Your task to perform on an android device: Open eBay Image 0: 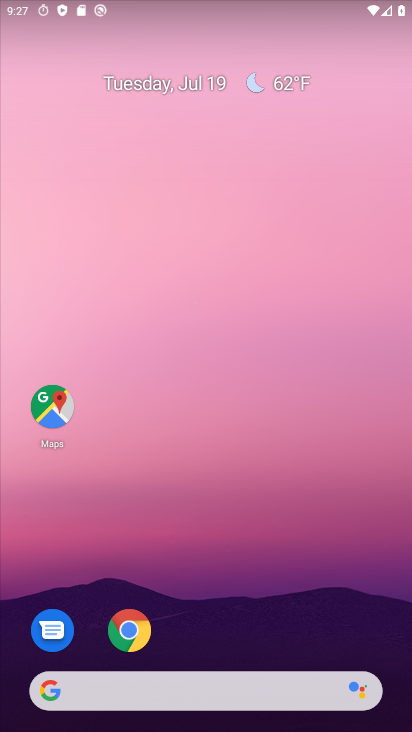
Step 0: click (120, 631)
Your task to perform on an android device: Open eBay Image 1: 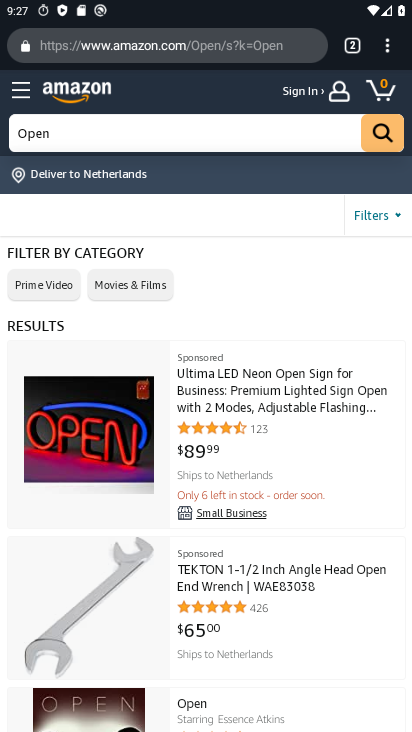
Step 1: click (351, 46)
Your task to perform on an android device: Open eBay Image 2: 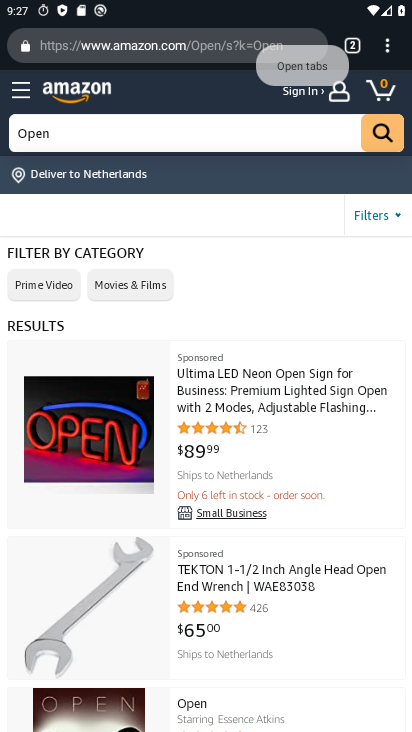
Step 2: click (351, 44)
Your task to perform on an android device: Open eBay Image 3: 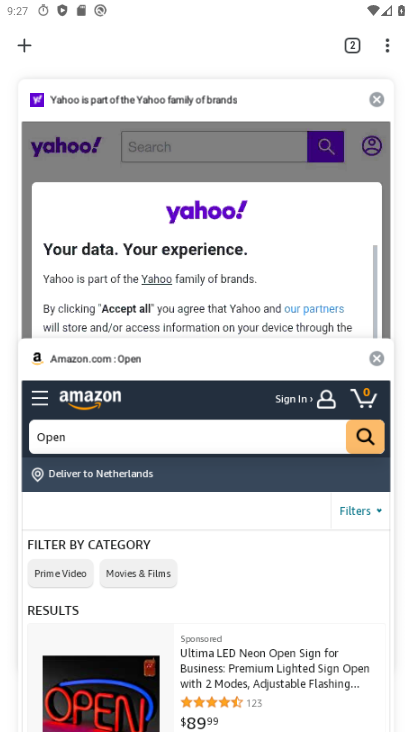
Step 3: click (376, 97)
Your task to perform on an android device: Open eBay Image 4: 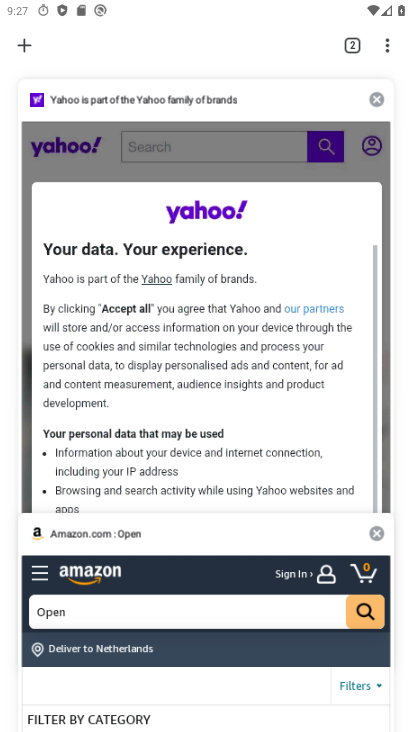
Step 4: click (376, 97)
Your task to perform on an android device: Open eBay Image 5: 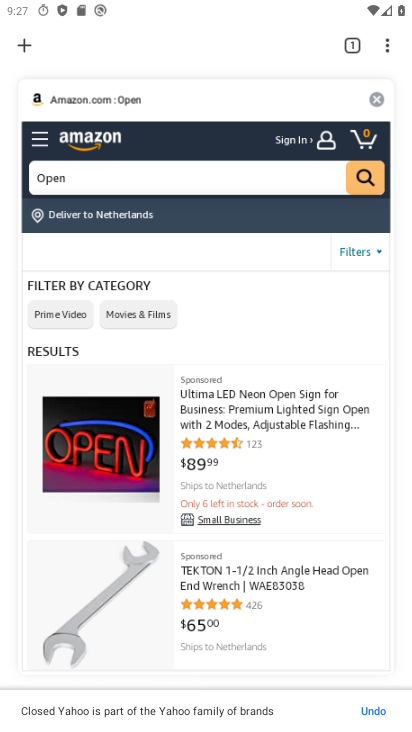
Step 5: click (376, 97)
Your task to perform on an android device: Open eBay Image 6: 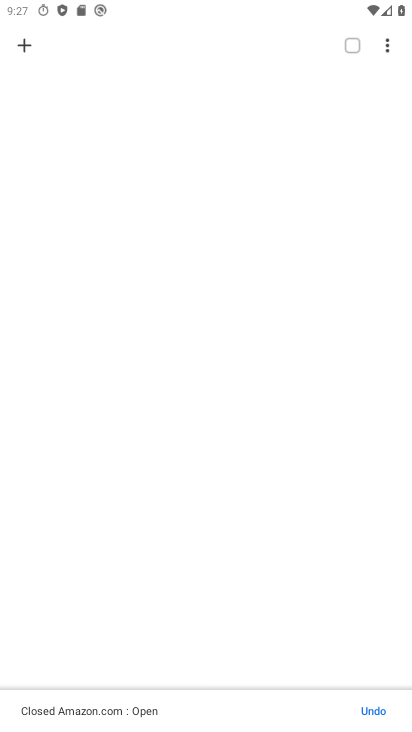
Step 6: click (25, 37)
Your task to perform on an android device: Open eBay Image 7: 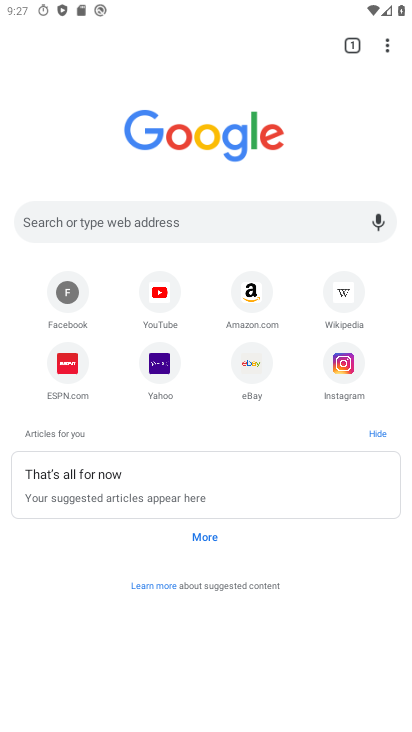
Step 7: click (241, 361)
Your task to perform on an android device: Open eBay Image 8: 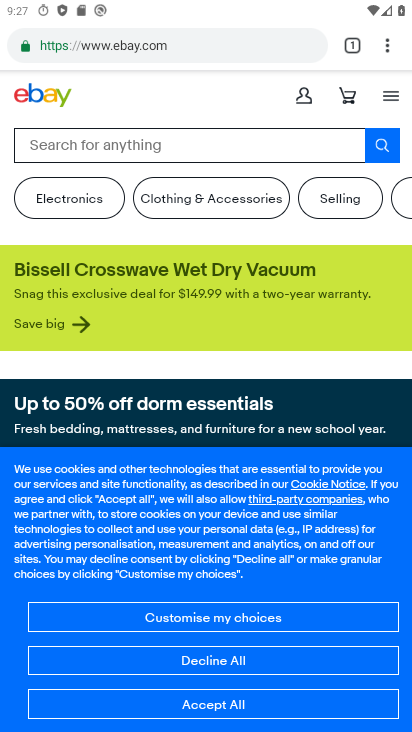
Step 8: task complete